Your task to perform on an android device: Do I have any events tomorrow? Image 0: 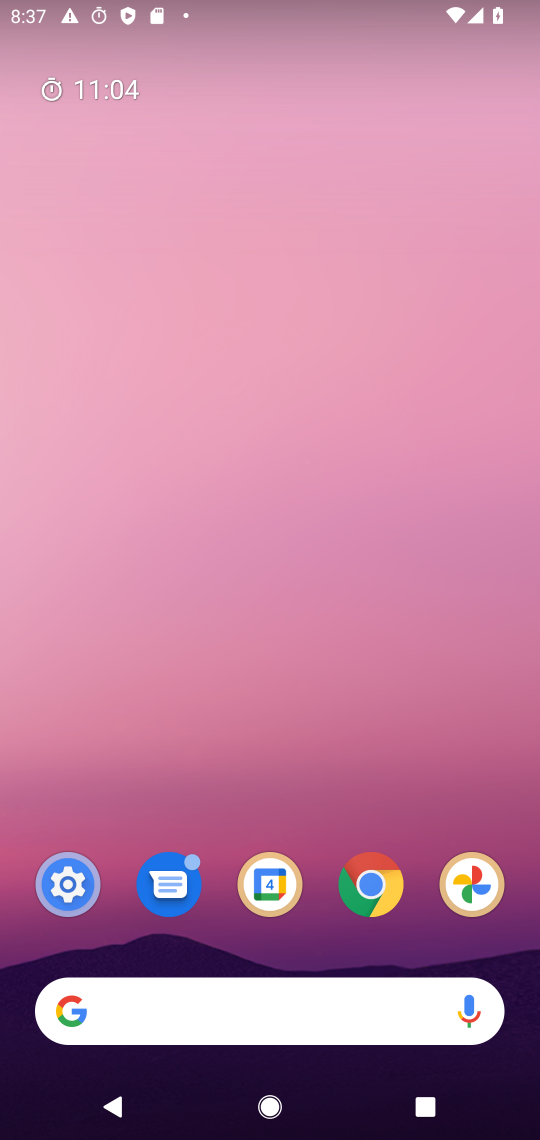
Step 0: press home button
Your task to perform on an android device: Do I have any events tomorrow? Image 1: 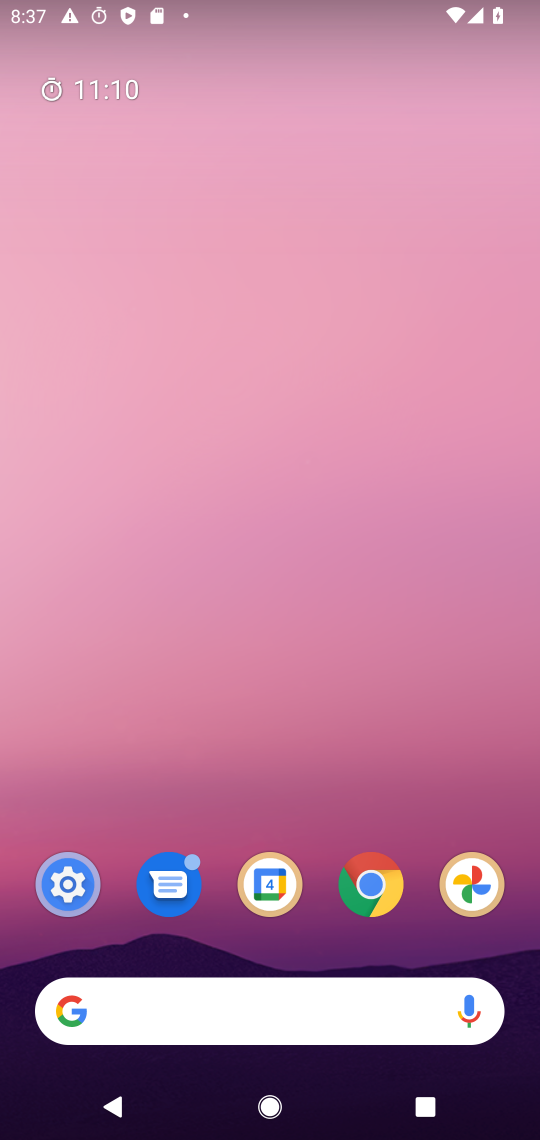
Step 1: click (260, 890)
Your task to perform on an android device: Do I have any events tomorrow? Image 2: 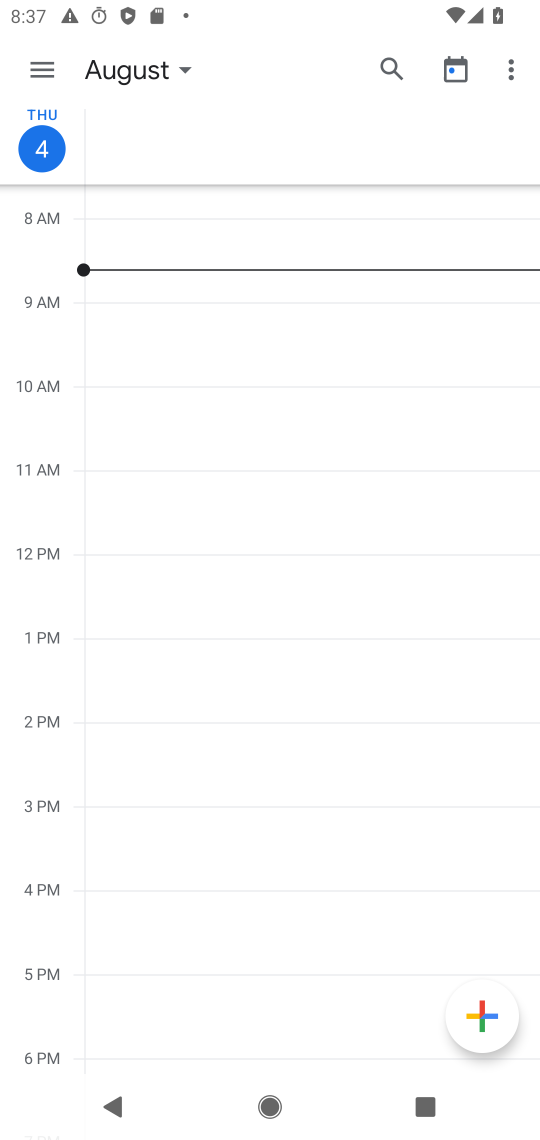
Step 2: click (50, 72)
Your task to perform on an android device: Do I have any events tomorrow? Image 3: 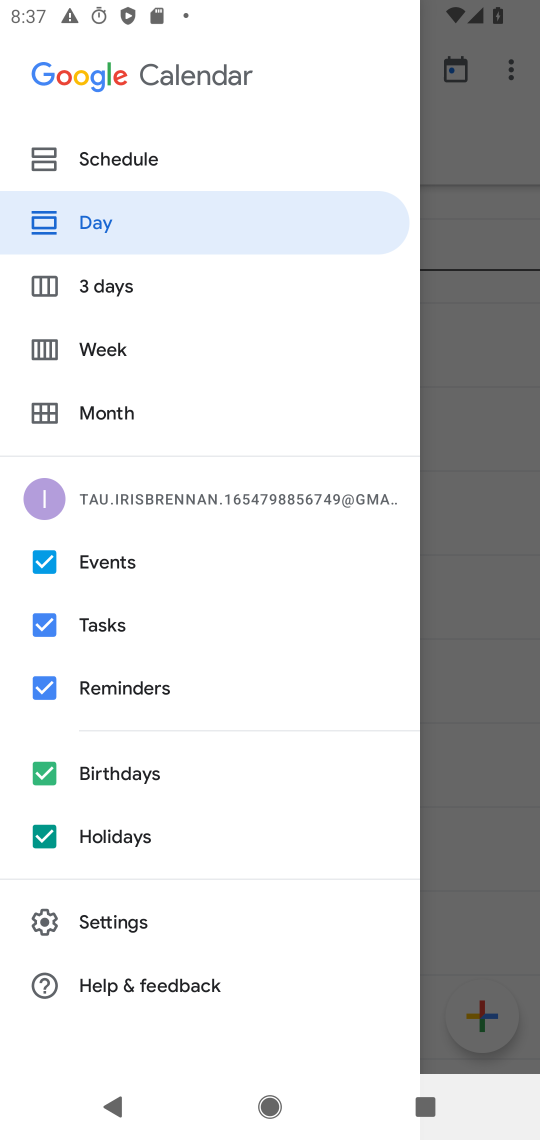
Step 3: drag from (380, 140) to (24, 186)
Your task to perform on an android device: Do I have any events tomorrow? Image 4: 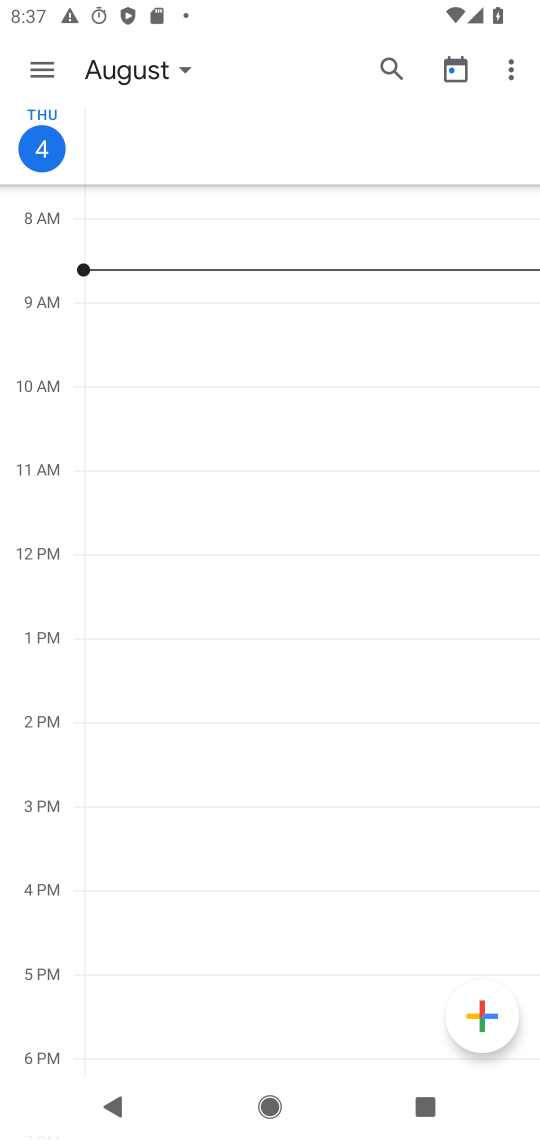
Step 4: click (190, 63)
Your task to perform on an android device: Do I have any events tomorrow? Image 5: 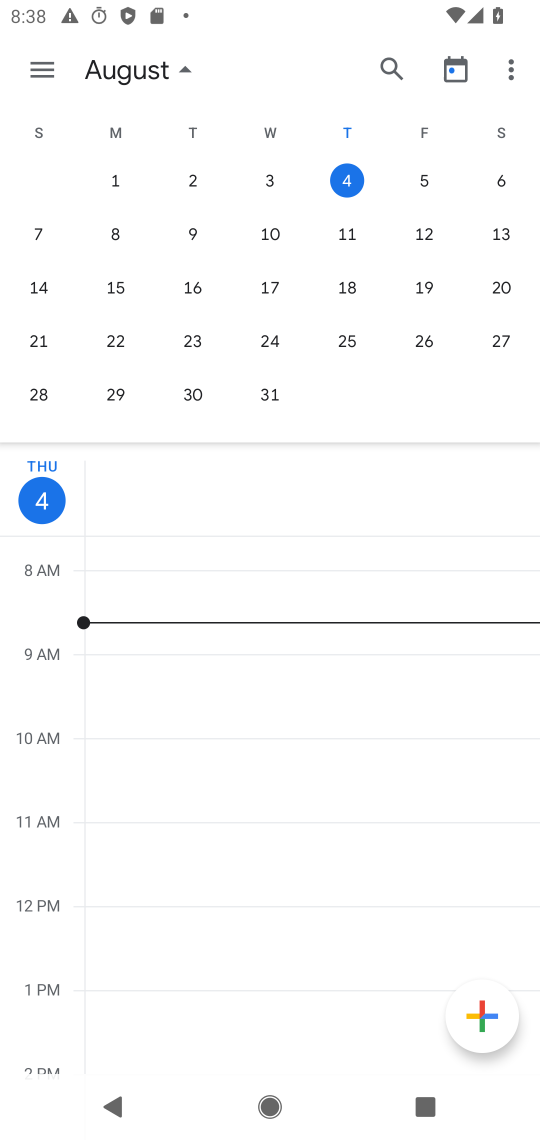
Step 5: click (428, 185)
Your task to perform on an android device: Do I have any events tomorrow? Image 6: 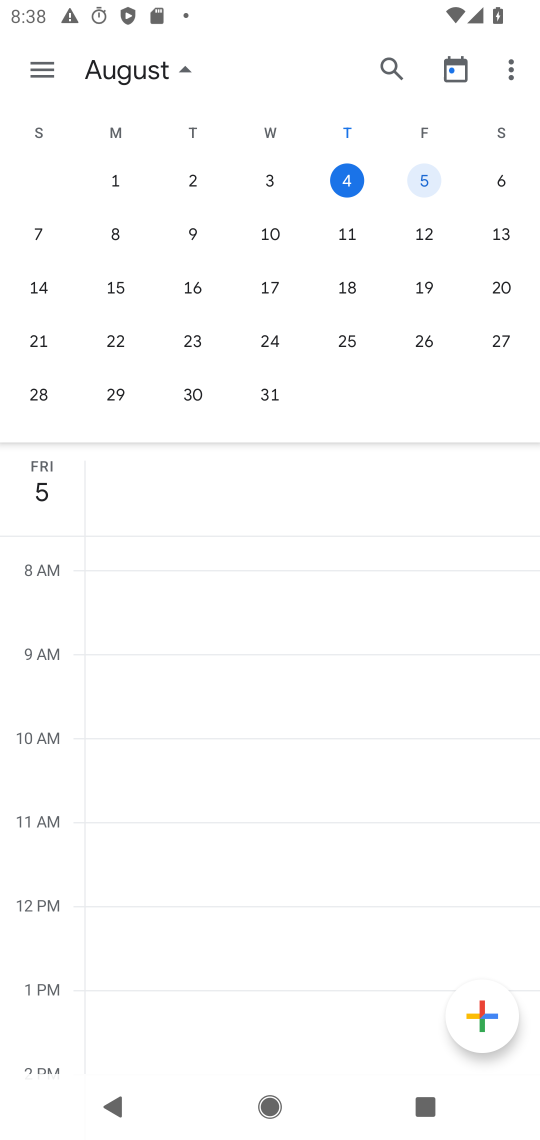
Step 6: task complete